Your task to perform on an android device: turn off notifications in google photos Image 0: 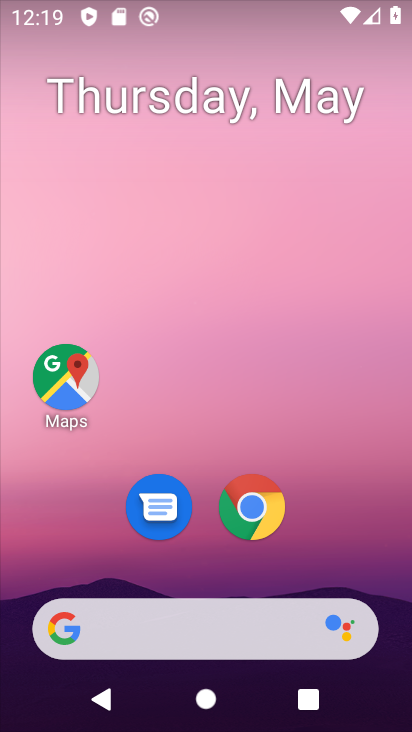
Step 0: drag from (94, 585) to (206, 153)
Your task to perform on an android device: turn off notifications in google photos Image 1: 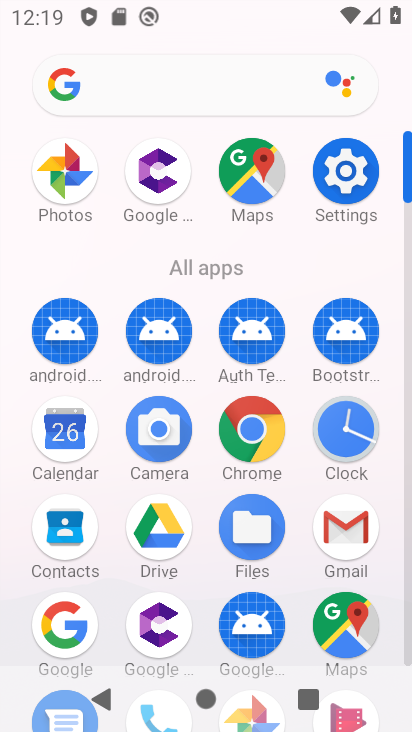
Step 1: drag from (178, 622) to (230, 404)
Your task to perform on an android device: turn off notifications in google photos Image 2: 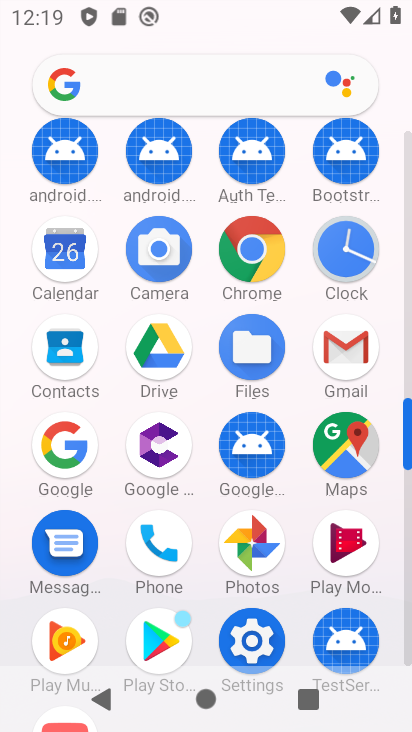
Step 2: click (268, 531)
Your task to perform on an android device: turn off notifications in google photos Image 3: 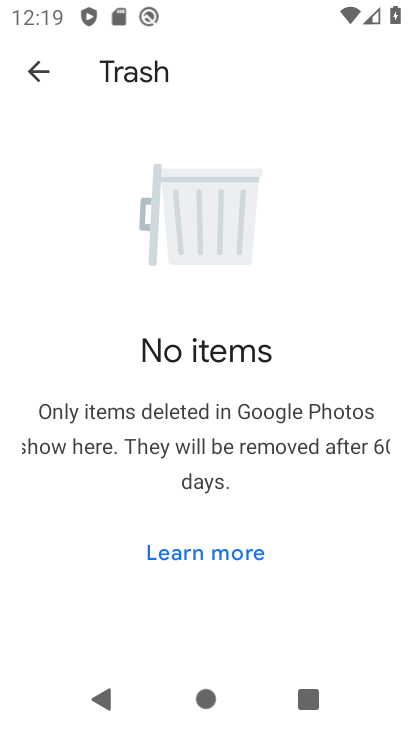
Step 3: click (51, 62)
Your task to perform on an android device: turn off notifications in google photos Image 4: 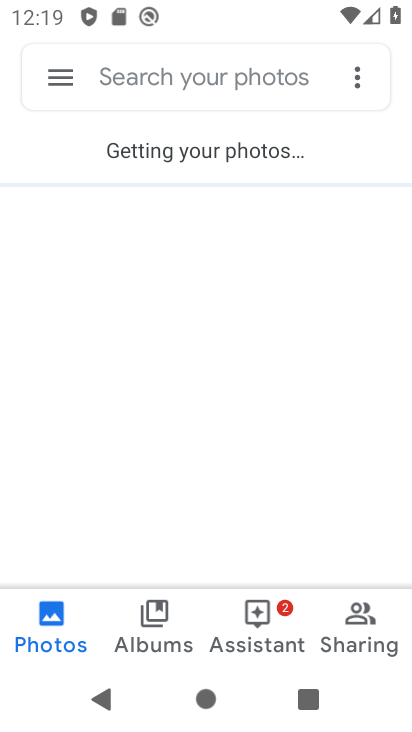
Step 4: click (60, 77)
Your task to perform on an android device: turn off notifications in google photos Image 5: 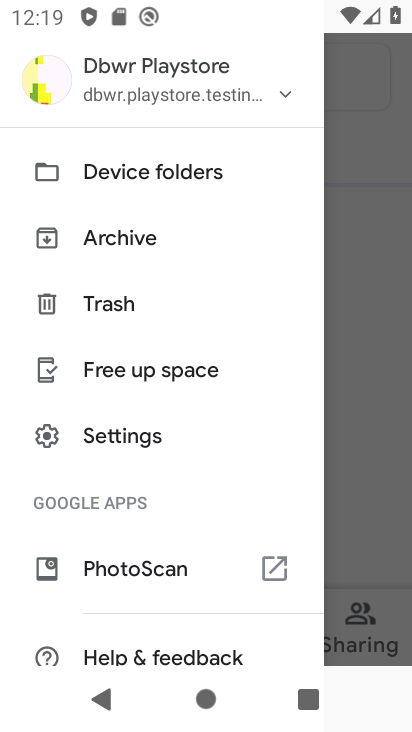
Step 5: drag from (88, 615) to (208, 141)
Your task to perform on an android device: turn off notifications in google photos Image 6: 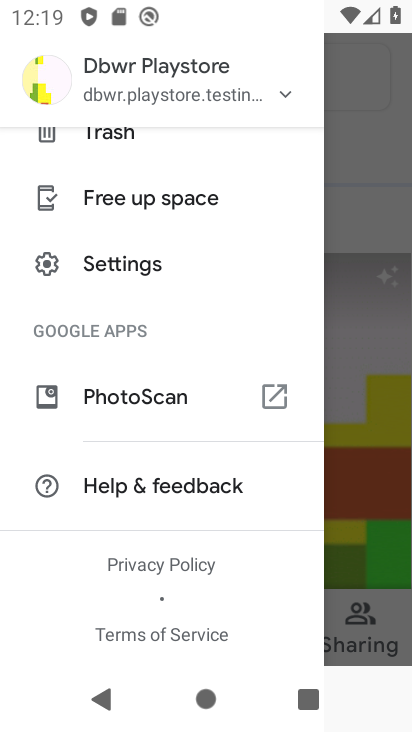
Step 6: click (167, 283)
Your task to perform on an android device: turn off notifications in google photos Image 7: 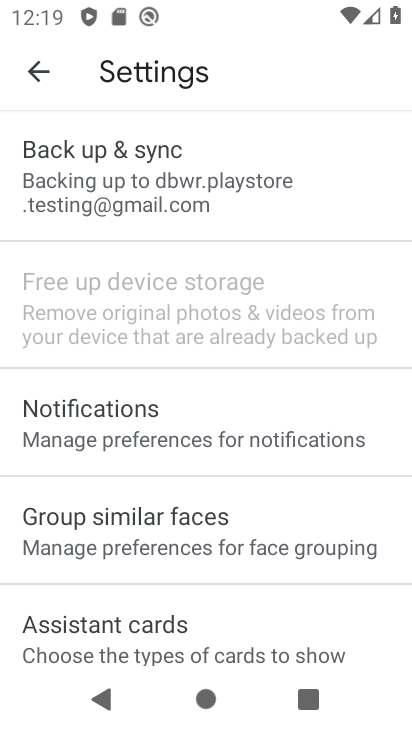
Step 7: click (174, 431)
Your task to perform on an android device: turn off notifications in google photos Image 8: 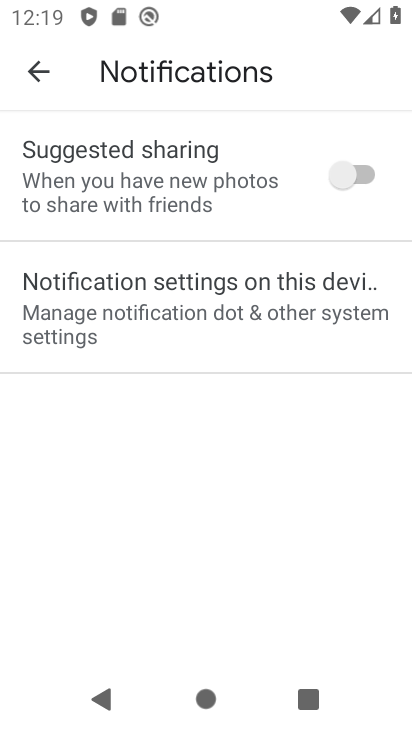
Step 8: click (303, 327)
Your task to perform on an android device: turn off notifications in google photos Image 9: 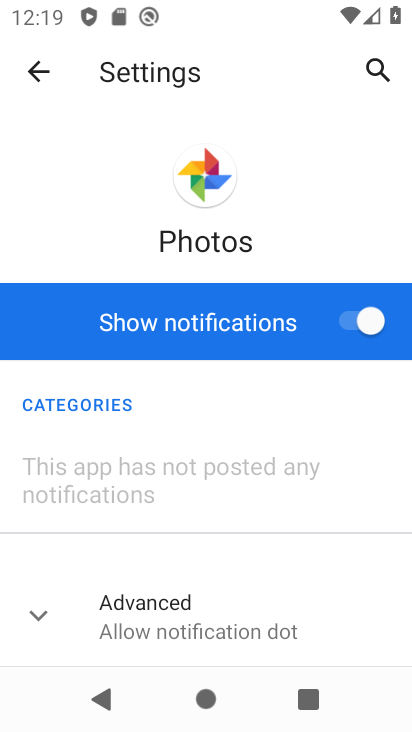
Step 9: click (333, 317)
Your task to perform on an android device: turn off notifications in google photos Image 10: 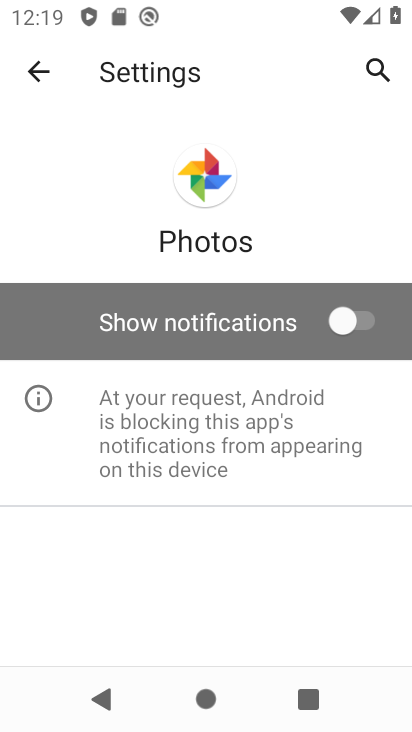
Step 10: task complete